Your task to perform on an android device: see sites visited before in the chrome app Image 0: 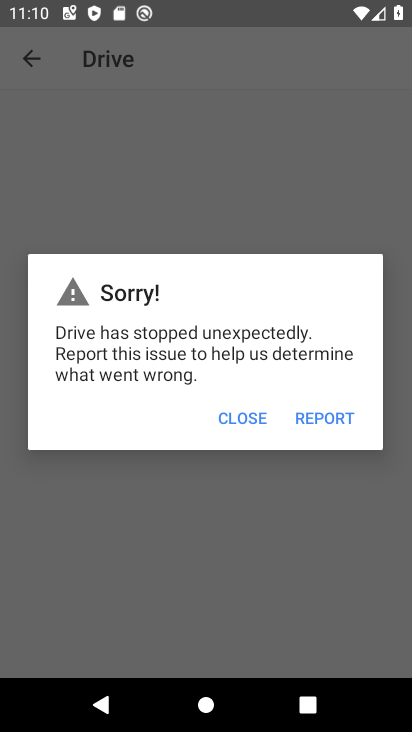
Step 0: drag from (368, 486) to (339, 197)
Your task to perform on an android device: see sites visited before in the chrome app Image 1: 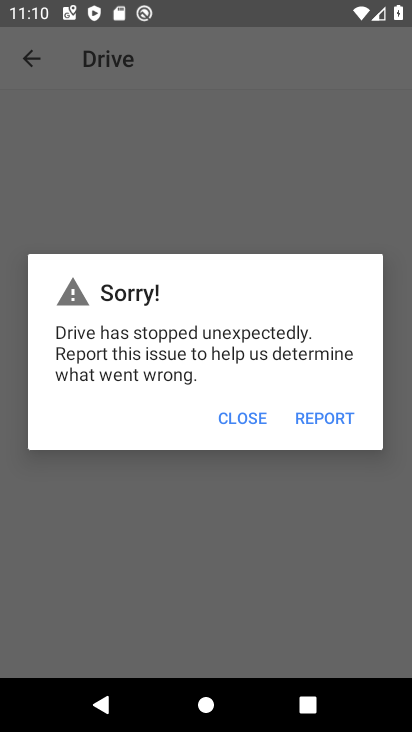
Step 1: press home button
Your task to perform on an android device: see sites visited before in the chrome app Image 2: 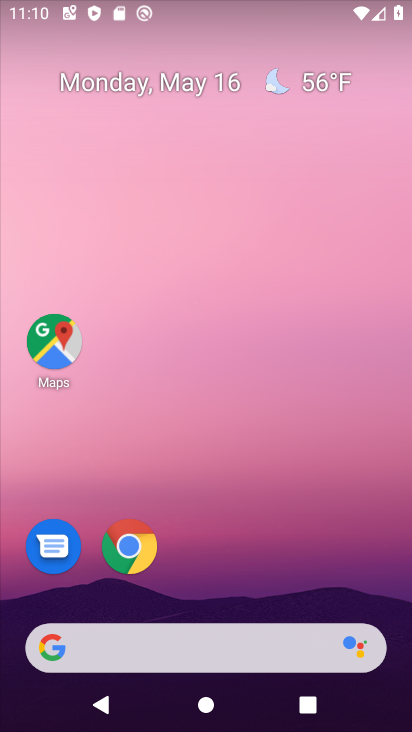
Step 2: drag from (335, 538) to (370, 103)
Your task to perform on an android device: see sites visited before in the chrome app Image 3: 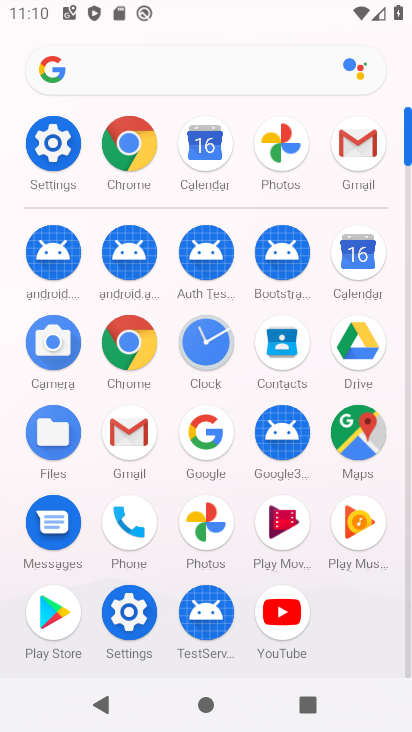
Step 3: click (130, 158)
Your task to perform on an android device: see sites visited before in the chrome app Image 4: 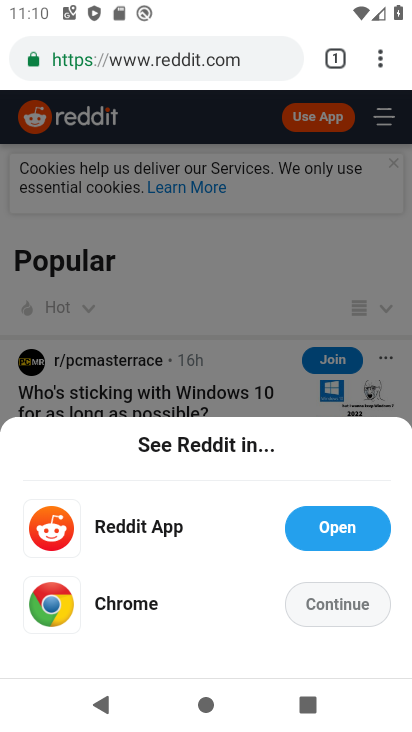
Step 4: drag from (381, 54) to (173, 295)
Your task to perform on an android device: see sites visited before in the chrome app Image 5: 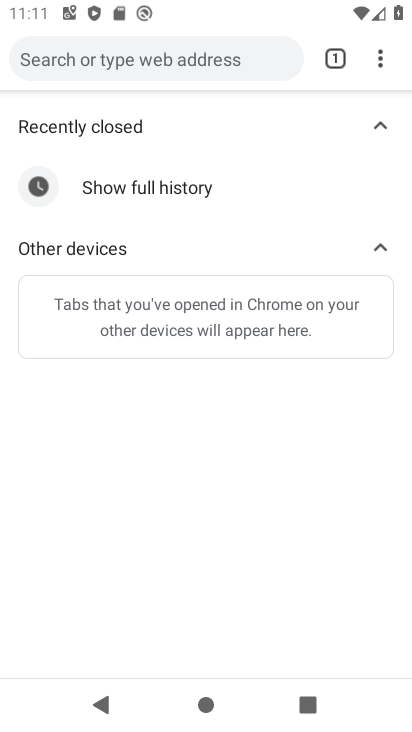
Step 5: press home button
Your task to perform on an android device: see sites visited before in the chrome app Image 6: 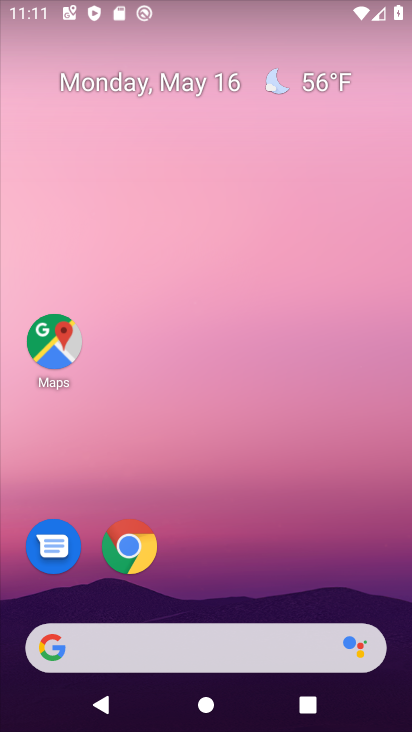
Step 6: drag from (312, 502) to (292, 129)
Your task to perform on an android device: see sites visited before in the chrome app Image 7: 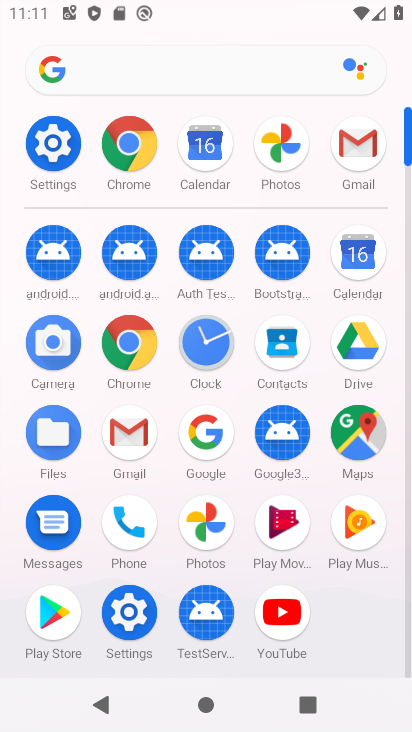
Step 7: click (124, 171)
Your task to perform on an android device: see sites visited before in the chrome app Image 8: 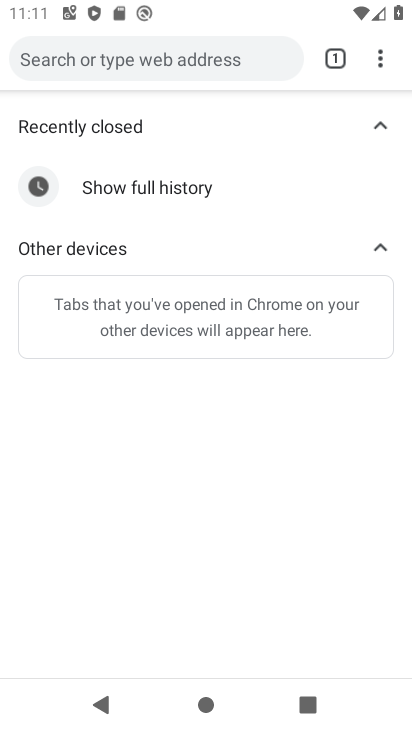
Step 8: task complete